Your task to perform on an android device: toggle data saver in the chrome app Image 0: 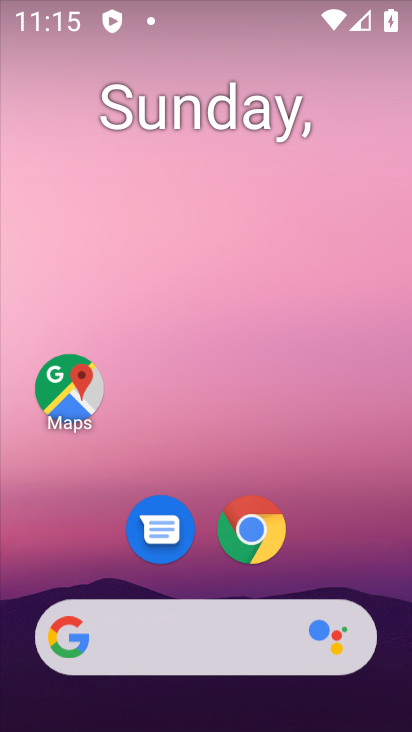
Step 0: click (251, 530)
Your task to perform on an android device: toggle data saver in the chrome app Image 1: 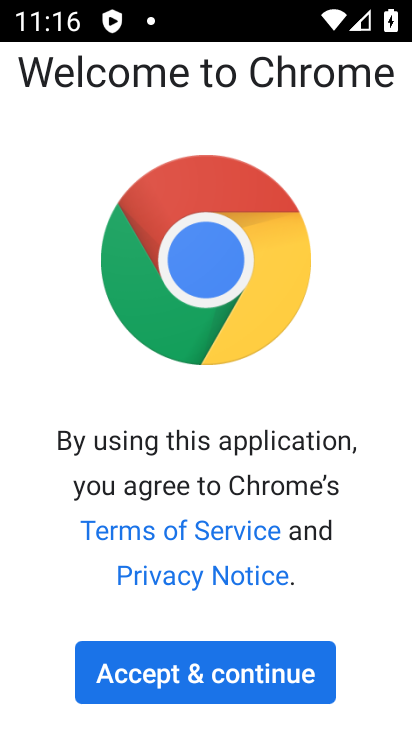
Step 1: click (215, 670)
Your task to perform on an android device: toggle data saver in the chrome app Image 2: 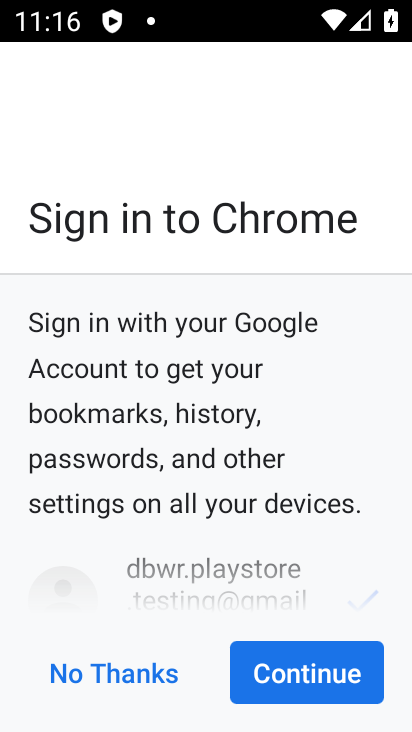
Step 2: click (328, 688)
Your task to perform on an android device: toggle data saver in the chrome app Image 3: 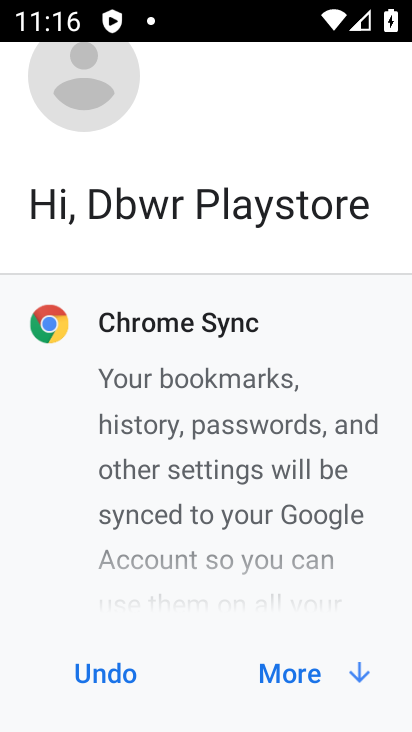
Step 3: click (311, 669)
Your task to perform on an android device: toggle data saver in the chrome app Image 4: 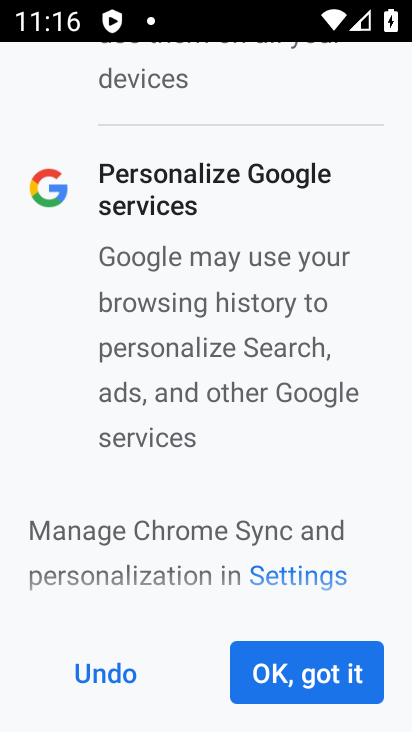
Step 4: click (311, 669)
Your task to perform on an android device: toggle data saver in the chrome app Image 5: 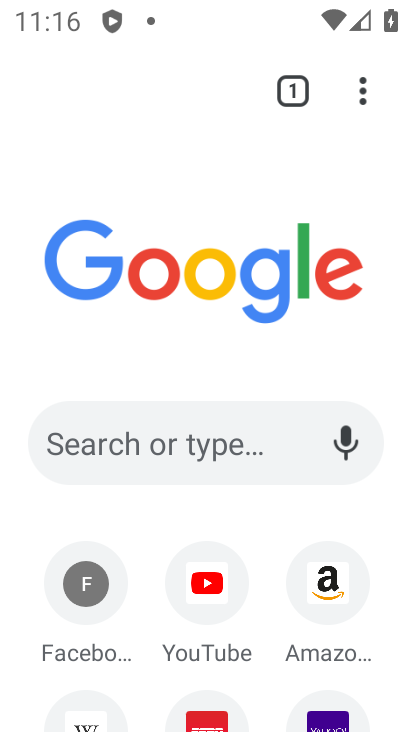
Step 5: drag from (262, 538) to (295, 280)
Your task to perform on an android device: toggle data saver in the chrome app Image 6: 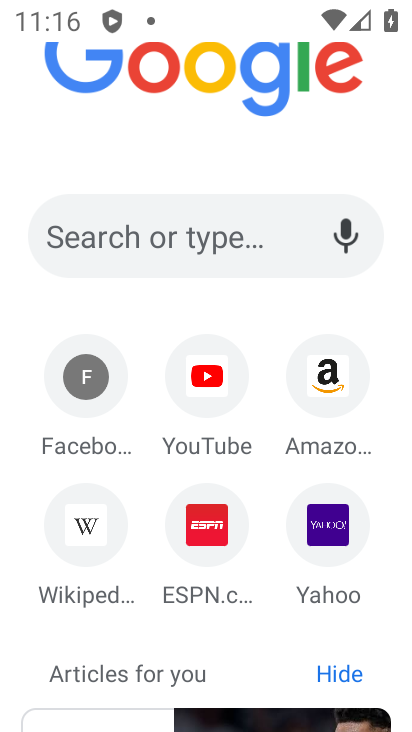
Step 6: drag from (249, 653) to (300, 328)
Your task to perform on an android device: toggle data saver in the chrome app Image 7: 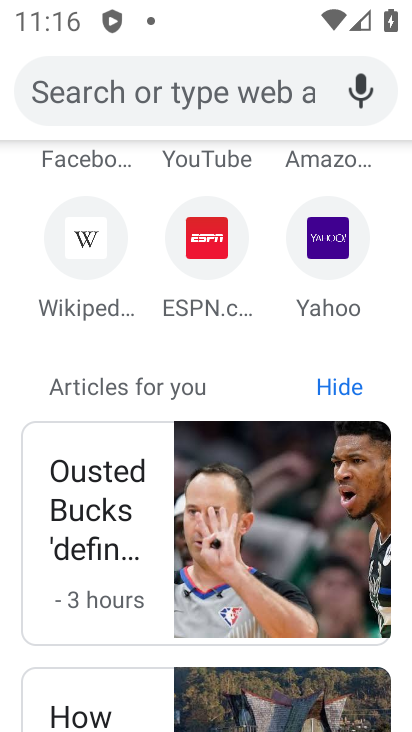
Step 7: drag from (367, 206) to (363, 487)
Your task to perform on an android device: toggle data saver in the chrome app Image 8: 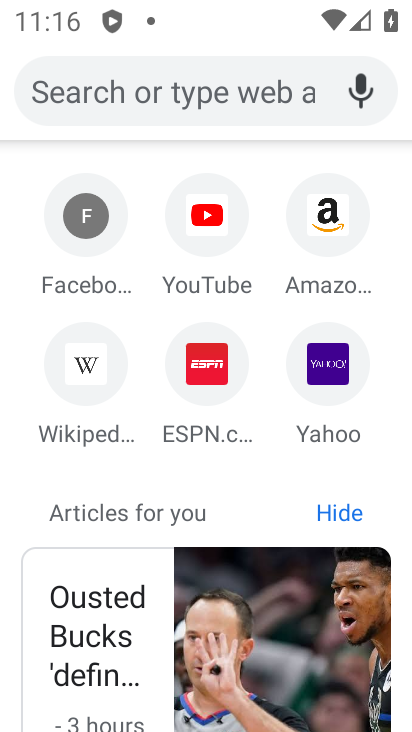
Step 8: drag from (275, 165) to (259, 499)
Your task to perform on an android device: toggle data saver in the chrome app Image 9: 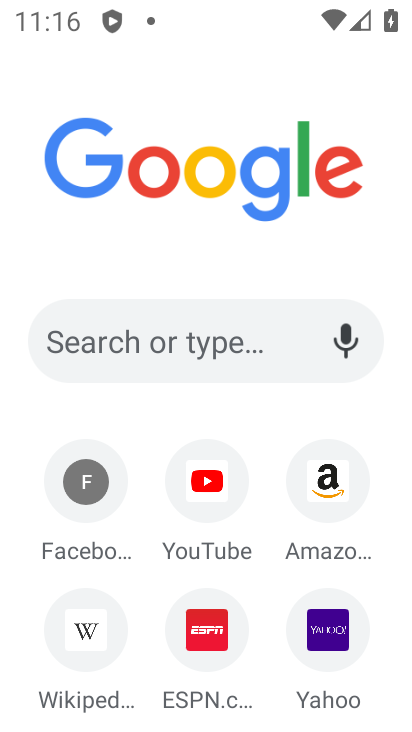
Step 9: drag from (347, 214) to (337, 473)
Your task to perform on an android device: toggle data saver in the chrome app Image 10: 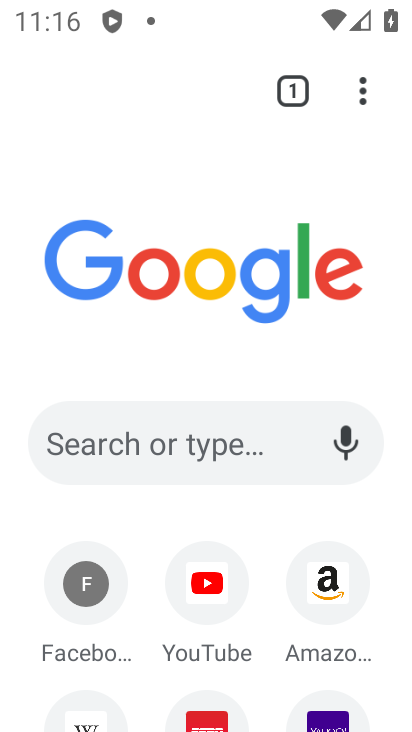
Step 10: click (364, 94)
Your task to perform on an android device: toggle data saver in the chrome app Image 11: 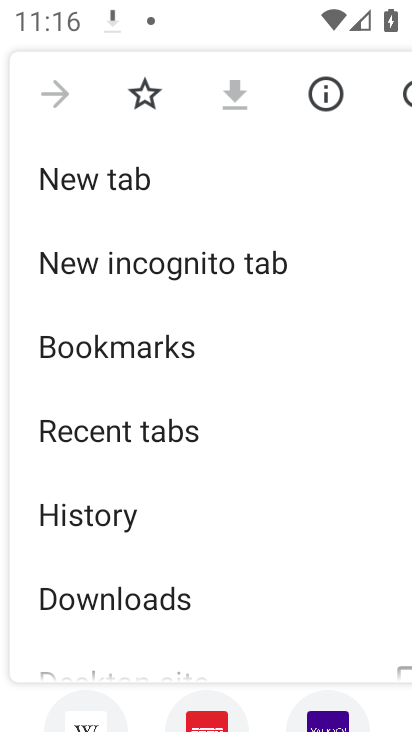
Step 11: drag from (207, 512) to (181, 336)
Your task to perform on an android device: toggle data saver in the chrome app Image 12: 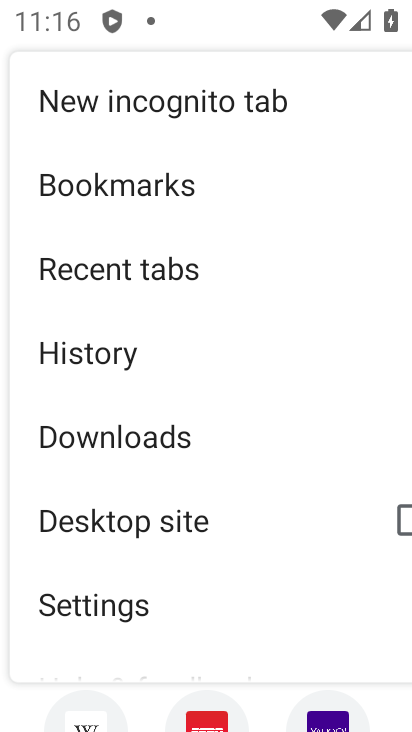
Step 12: drag from (185, 572) to (255, 457)
Your task to perform on an android device: toggle data saver in the chrome app Image 13: 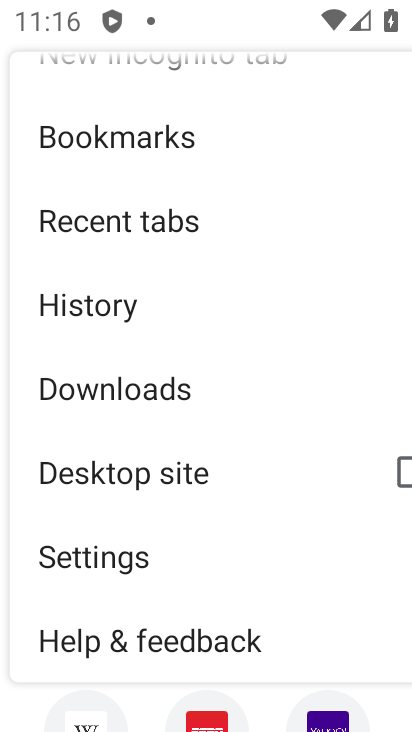
Step 13: click (73, 562)
Your task to perform on an android device: toggle data saver in the chrome app Image 14: 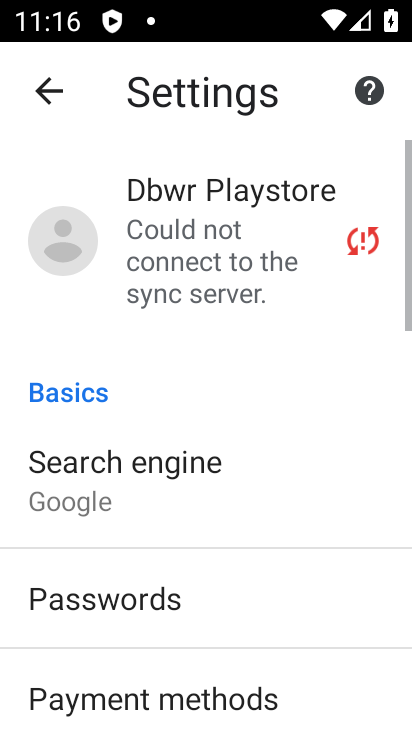
Step 14: drag from (213, 598) to (249, 453)
Your task to perform on an android device: toggle data saver in the chrome app Image 15: 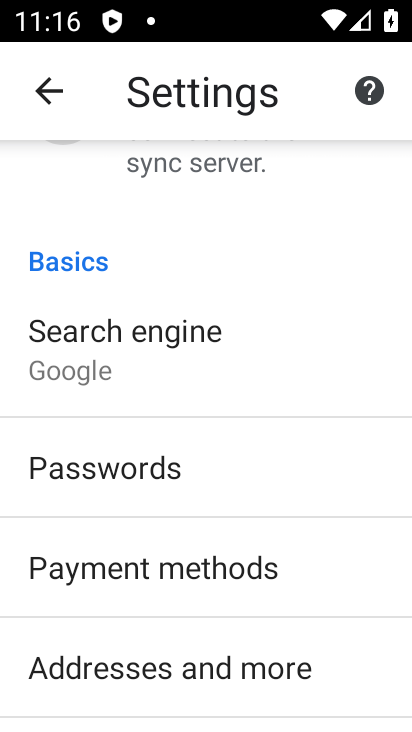
Step 15: drag from (173, 594) to (254, 475)
Your task to perform on an android device: toggle data saver in the chrome app Image 16: 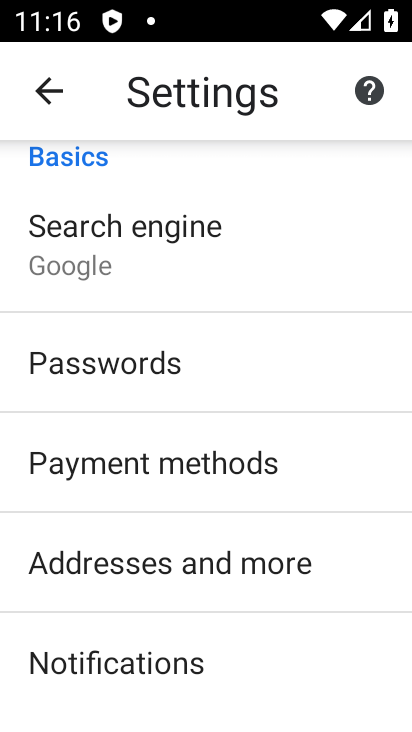
Step 16: drag from (169, 595) to (266, 473)
Your task to perform on an android device: toggle data saver in the chrome app Image 17: 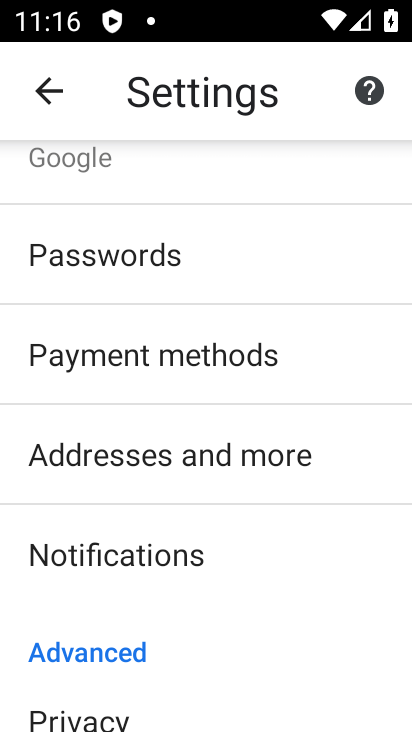
Step 17: drag from (171, 627) to (323, 442)
Your task to perform on an android device: toggle data saver in the chrome app Image 18: 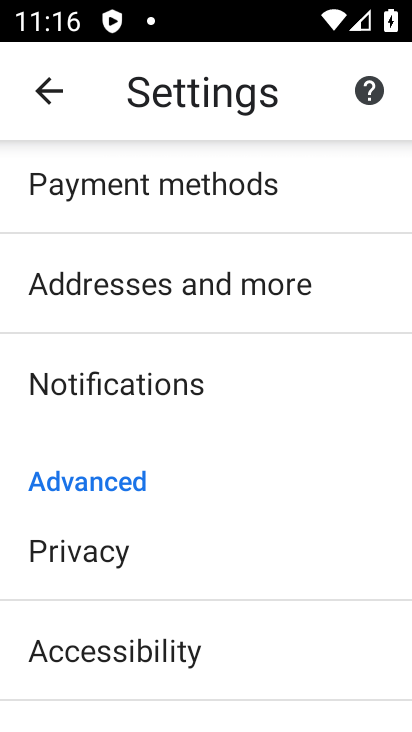
Step 18: drag from (254, 635) to (285, 520)
Your task to perform on an android device: toggle data saver in the chrome app Image 19: 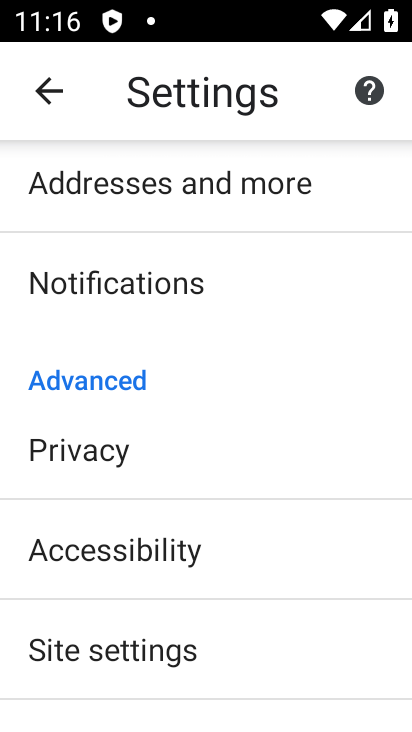
Step 19: drag from (235, 630) to (297, 500)
Your task to perform on an android device: toggle data saver in the chrome app Image 20: 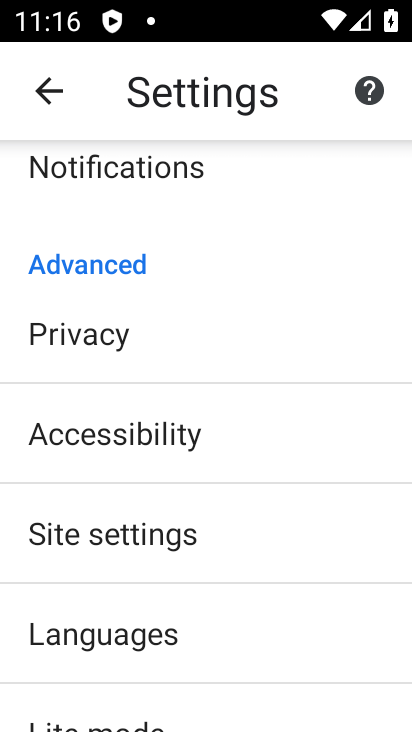
Step 20: drag from (203, 643) to (248, 491)
Your task to perform on an android device: toggle data saver in the chrome app Image 21: 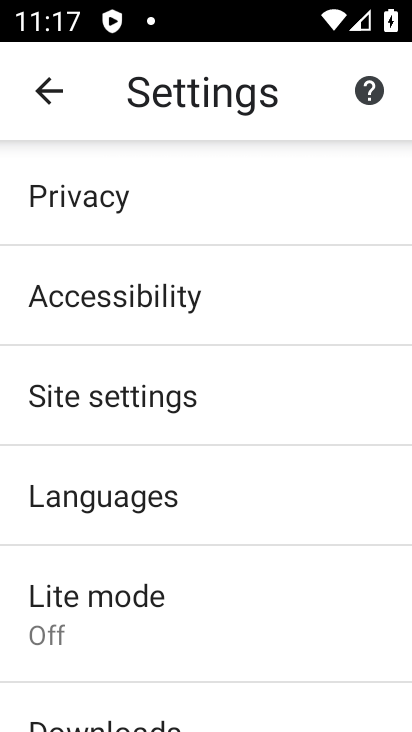
Step 21: click (128, 600)
Your task to perform on an android device: toggle data saver in the chrome app Image 22: 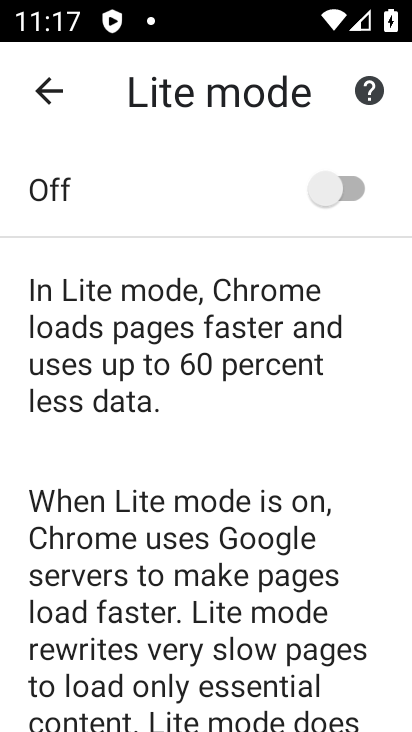
Step 22: click (347, 181)
Your task to perform on an android device: toggle data saver in the chrome app Image 23: 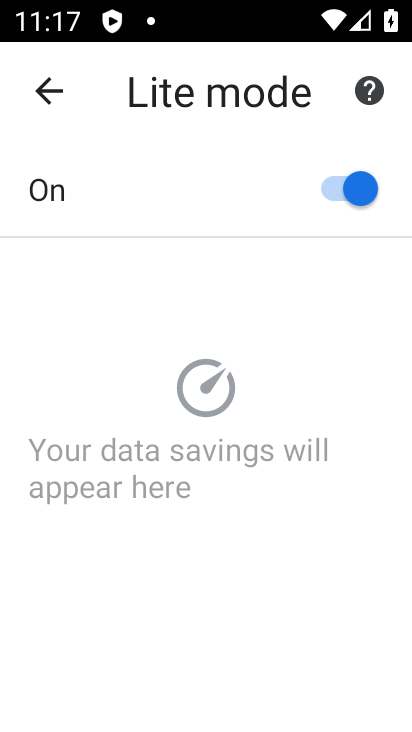
Step 23: task complete